Your task to perform on an android device: Go to sound settings Image 0: 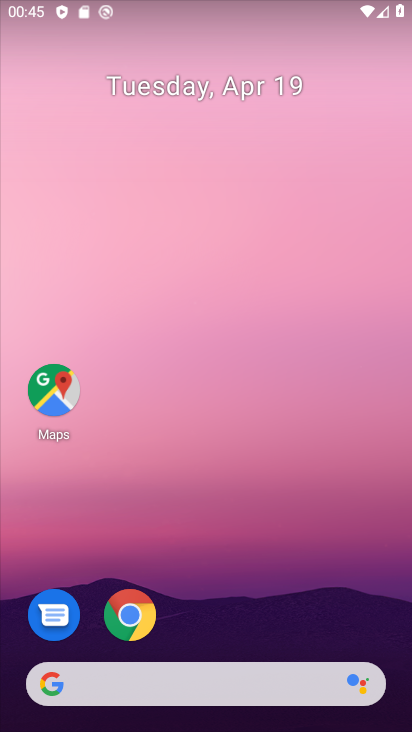
Step 0: drag from (250, 607) to (267, 210)
Your task to perform on an android device: Go to sound settings Image 1: 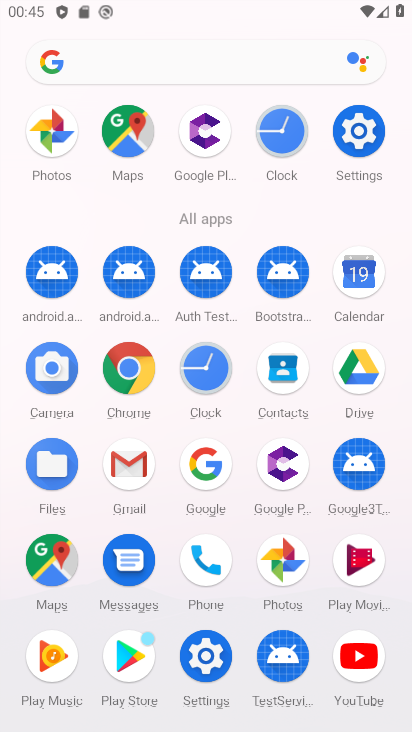
Step 1: click (358, 124)
Your task to perform on an android device: Go to sound settings Image 2: 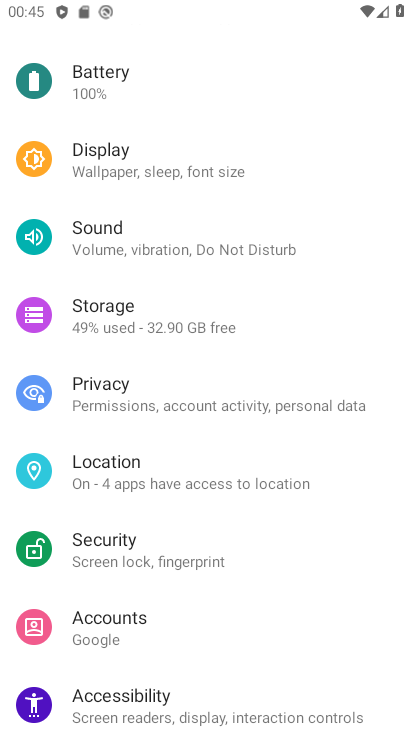
Step 2: click (148, 240)
Your task to perform on an android device: Go to sound settings Image 3: 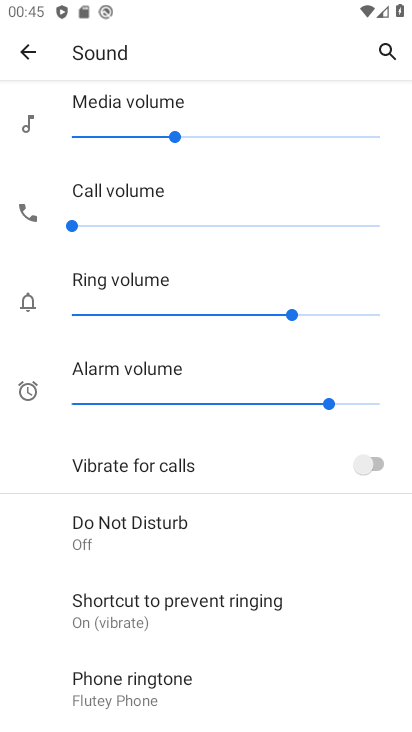
Step 3: task complete